Your task to perform on an android device: toggle translation in the chrome app Image 0: 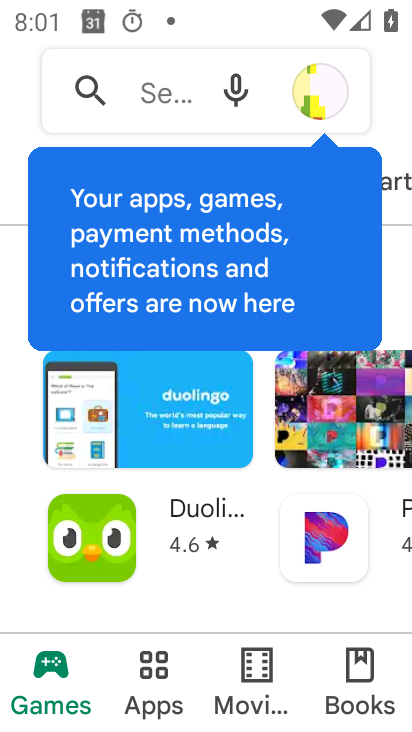
Step 0: press home button
Your task to perform on an android device: toggle translation in the chrome app Image 1: 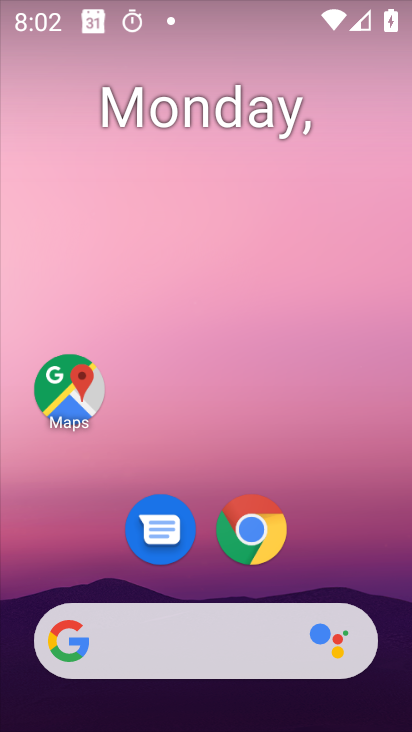
Step 1: click (240, 528)
Your task to perform on an android device: toggle translation in the chrome app Image 2: 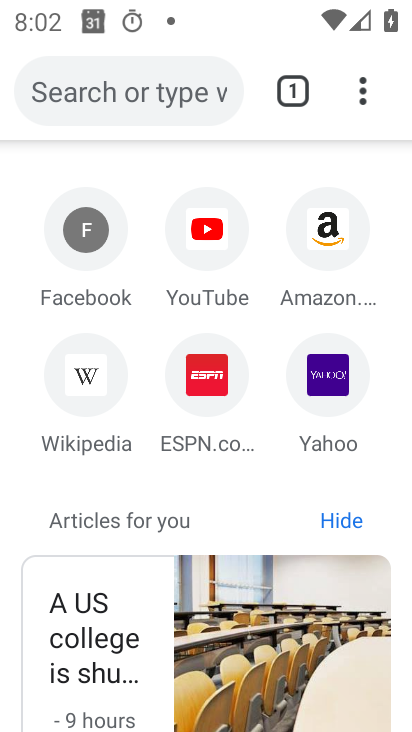
Step 2: click (366, 91)
Your task to perform on an android device: toggle translation in the chrome app Image 3: 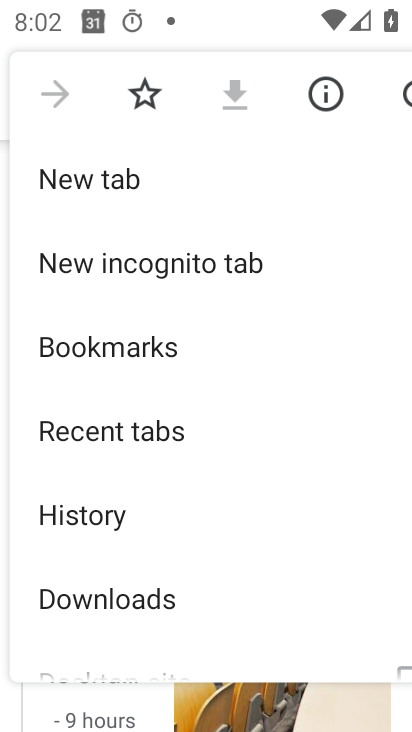
Step 3: drag from (143, 624) to (198, 195)
Your task to perform on an android device: toggle translation in the chrome app Image 4: 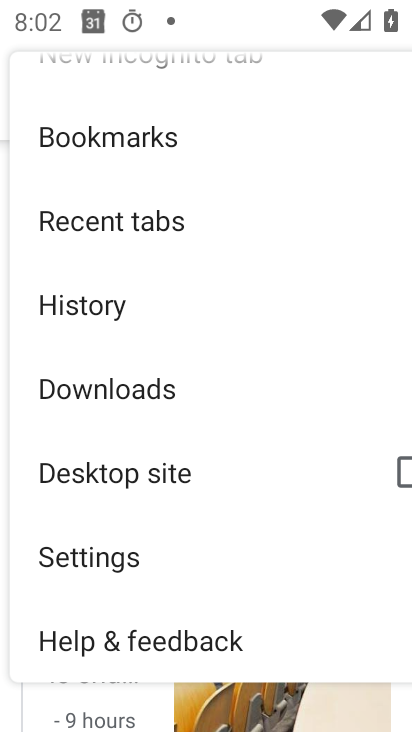
Step 4: drag from (140, 591) to (222, 175)
Your task to perform on an android device: toggle translation in the chrome app Image 5: 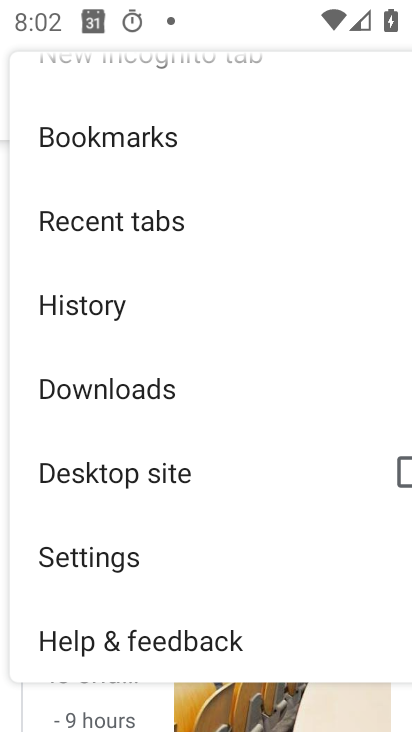
Step 5: click (96, 564)
Your task to perform on an android device: toggle translation in the chrome app Image 6: 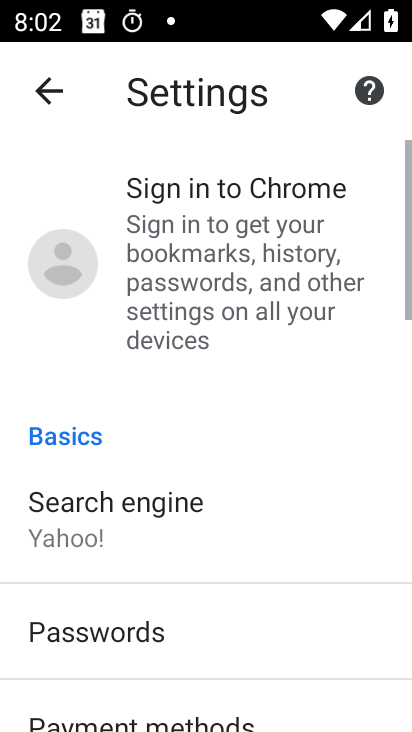
Step 6: drag from (119, 696) to (209, 237)
Your task to perform on an android device: toggle translation in the chrome app Image 7: 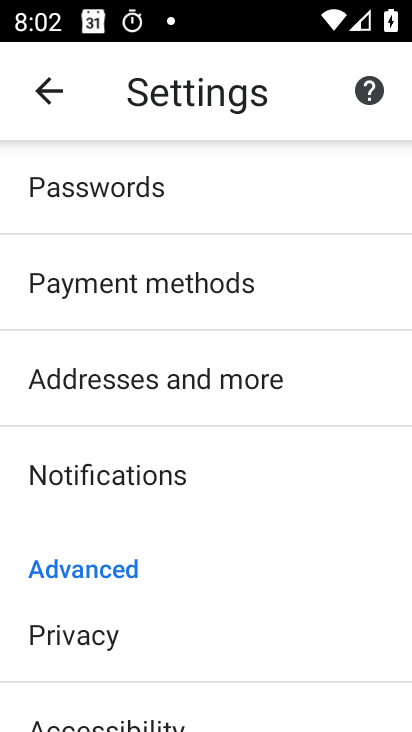
Step 7: drag from (178, 654) to (300, 207)
Your task to perform on an android device: toggle translation in the chrome app Image 8: 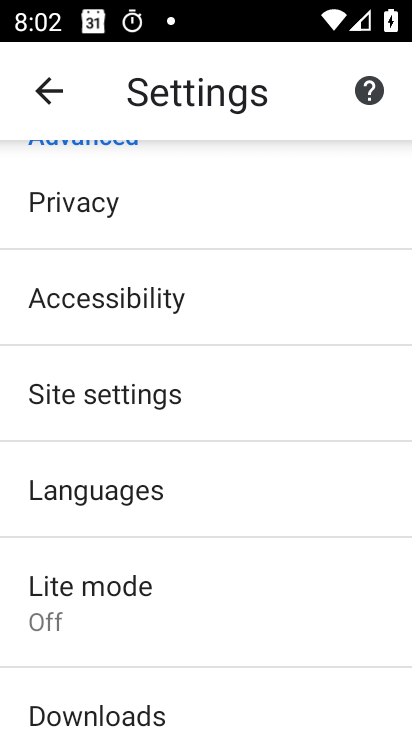
Step 8: click (135, 488)
Your task to perform on an android device: toggle translation in the chrome app Image 9: 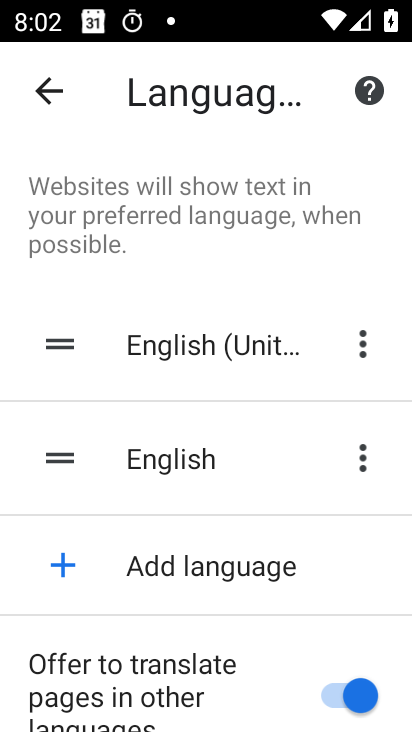
Step 9: click (359, 693)
Your task to perform on an android device: toggle translation in the chrome app Image 10: 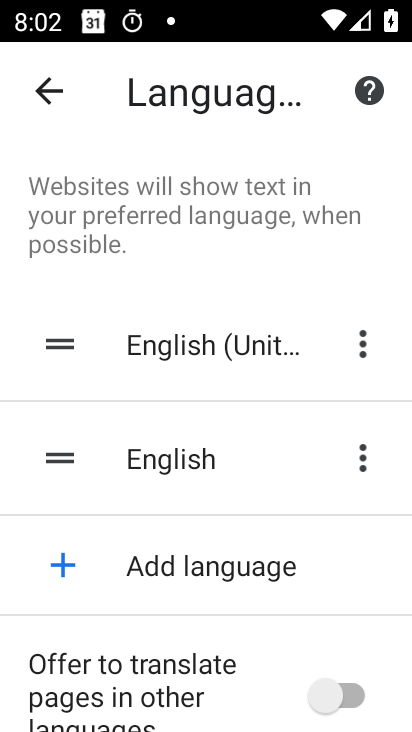
Step 10: task complete